Your task to perform on an android device: Open display settings Image 0: 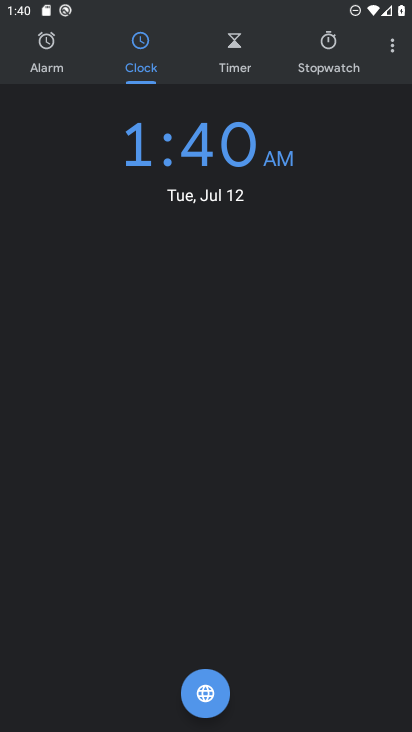
Step 0: press home button
Your task to perform on an android device: Open display settings Image 1: 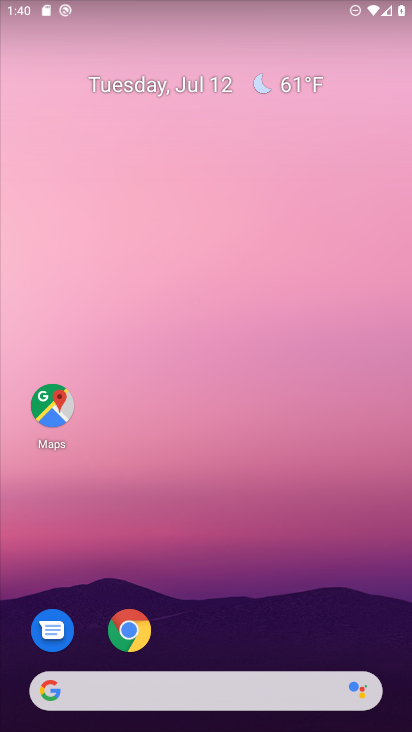
Step 1: drag from (215, 598) to (226, 120)
Your task to perform on an android device: Open display settings Image 2: 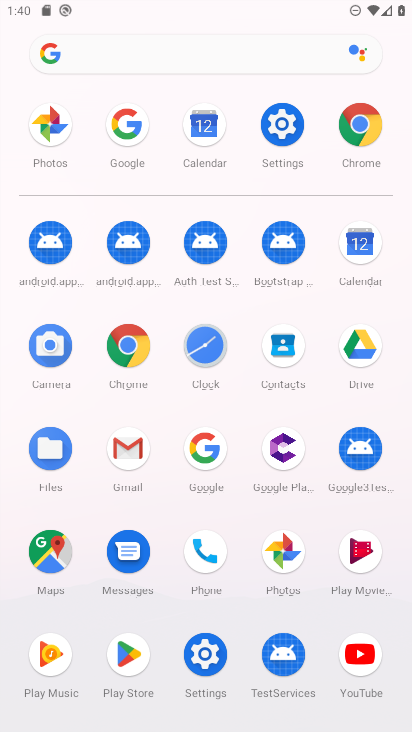
Step 2: click (263, 109)
Your task to perform on an android device: Open display settings Image 3: 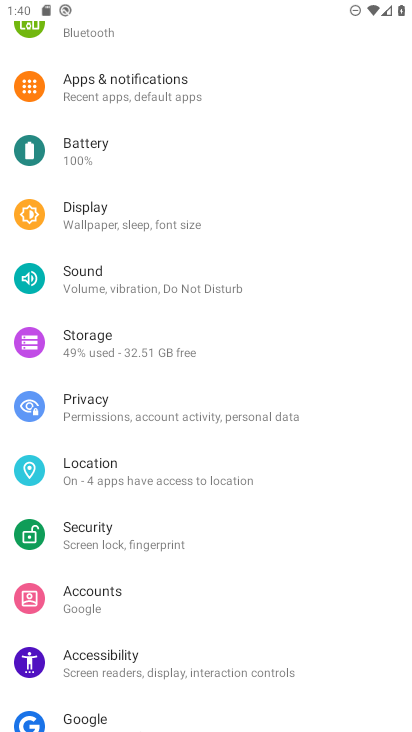
Step 3: click (138, 217)
Your task to perform on an android device: Open display settings Image 4: 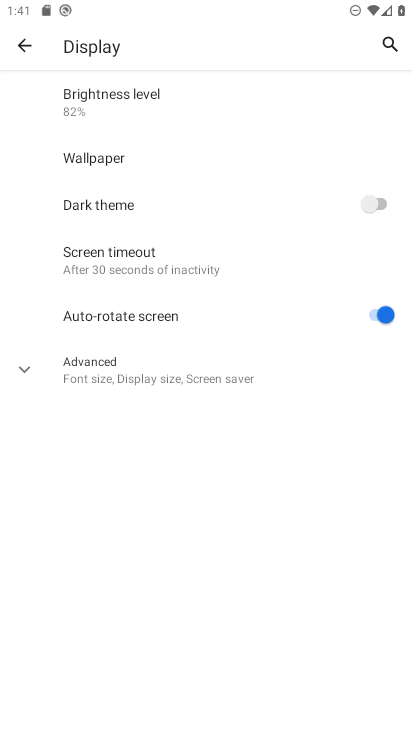
Step 4: task complete